Your task to perform on an android device: Go to wifi settings Image 0: 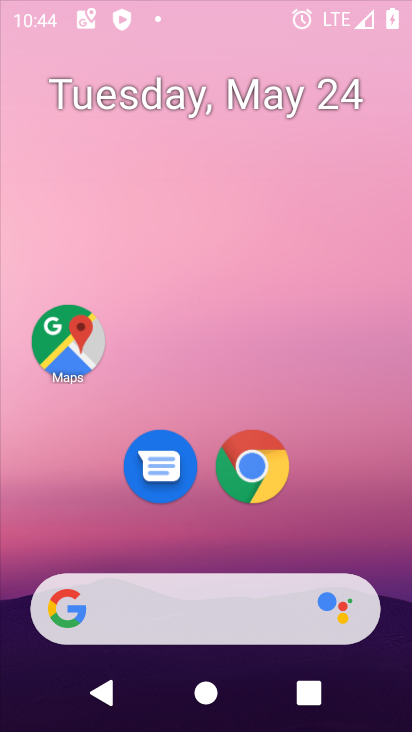
Step 0: drag from (393, 563) to (369, 178)
Your task to perform on an android device: Go to wifi settings Image 1: 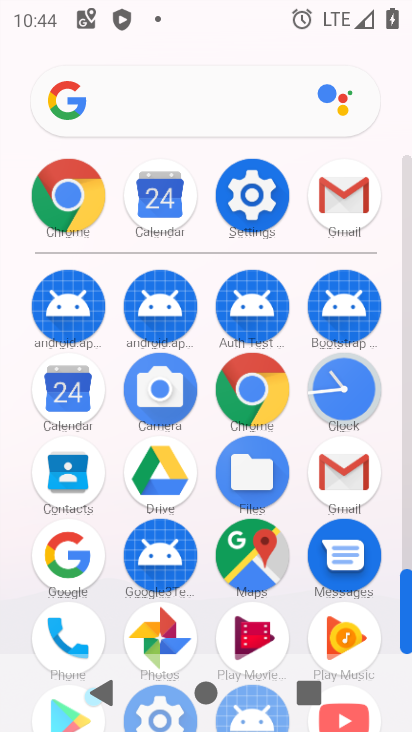
Step 1: click (247, 218)
Your task to perform on an android device: Go to wifi settings Image 2: 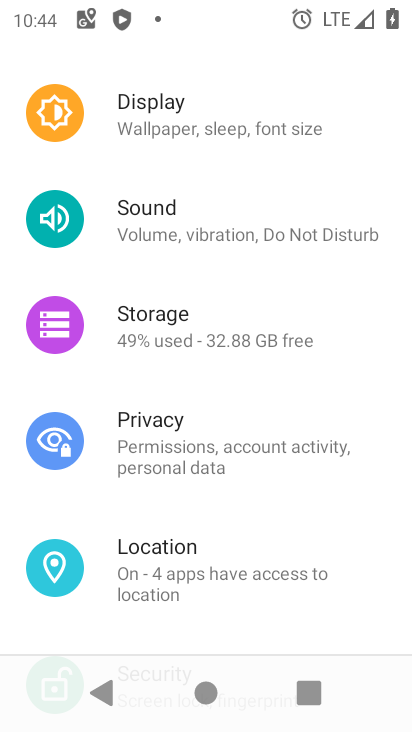
Step 2: drag from (361, 583) to (376, 467)
Your task to perform on an android device: Go to wifi settings Image 3: 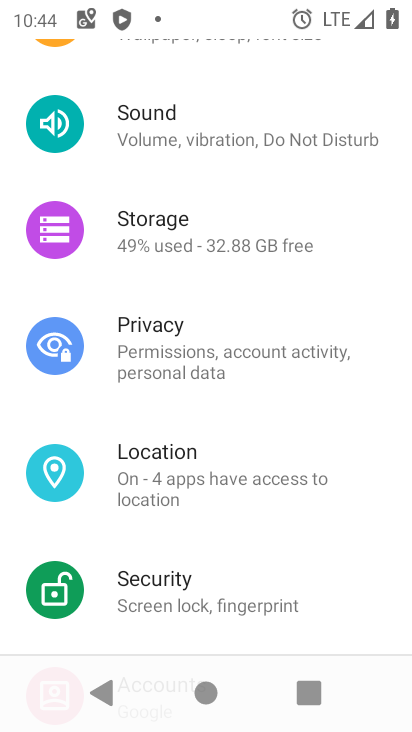
Step 3: drag from (369, 602) to (359, 456)
Your task to perform on an android device: Go to wifi settings Image 4: 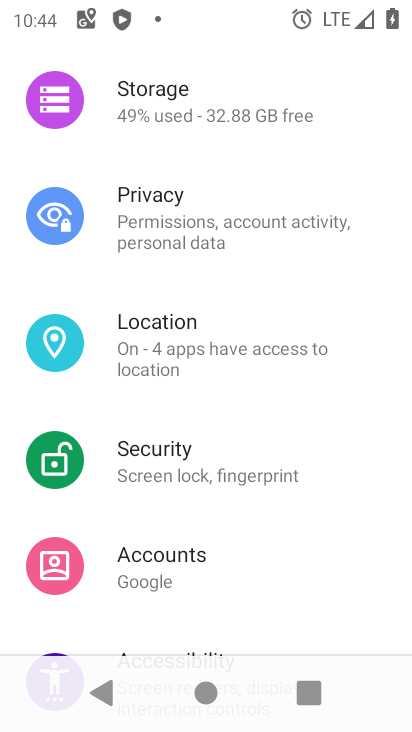
Step 4: drag from (350, 601) to (332, 460)
Your task to perform on an android device: Go to wifi settings Image 5: 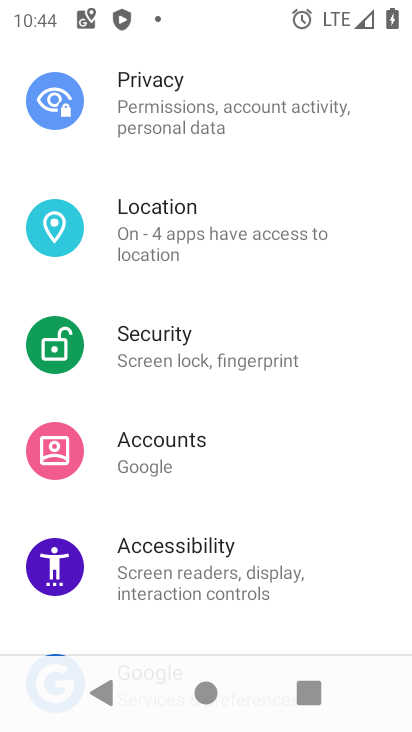
Step 5: drag from (336, 609) to (344, 459)
Your task to perform on an android device: Go to wifi settings Image 6: 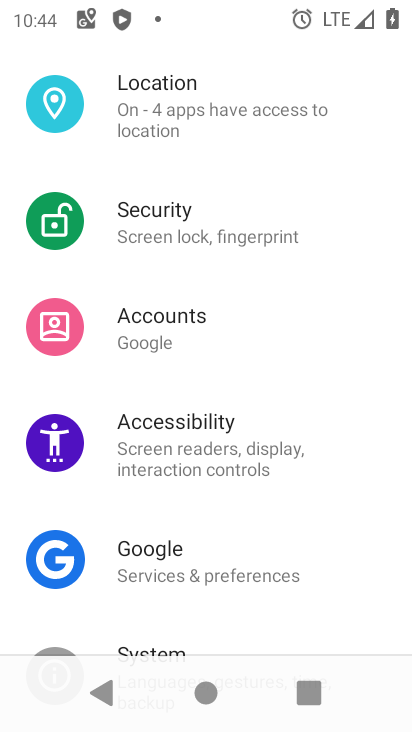
Step 6: drag from (363, 609) to (369, 449)
Your task to perform on an android device: Go to wifi settings Image 7: 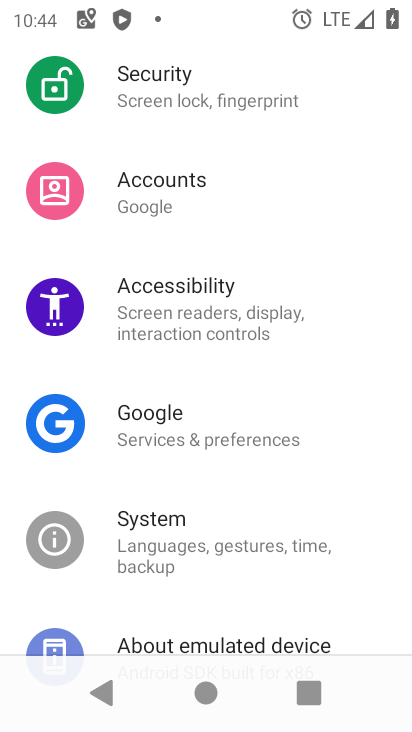
Step 7: drag from (368, 381) to (370, 503)
Your task to perform on an android device: Go to wifi settings Image 8: 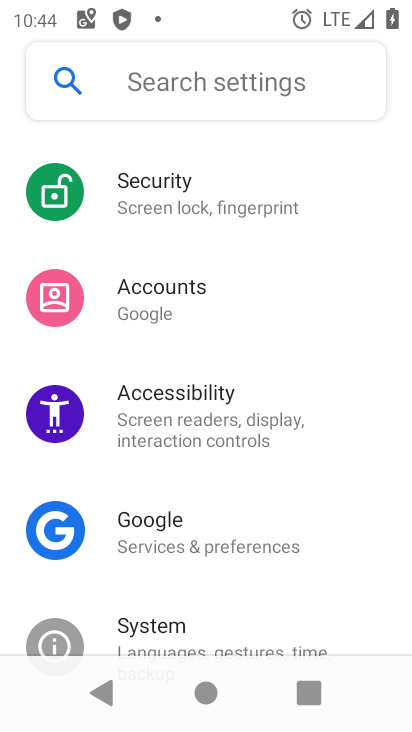
Step 8: drag from (372, 402) to (362, 502)
Your task to perform on an android device: Go to wifi settings Image 9: 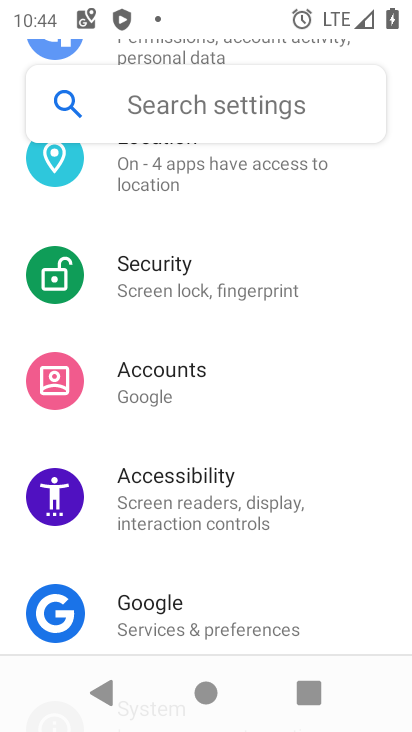
Step 9: drag from (361, 424) to (361, 509)
Your task to perform on an android device: Go to wifi settings Image 10: 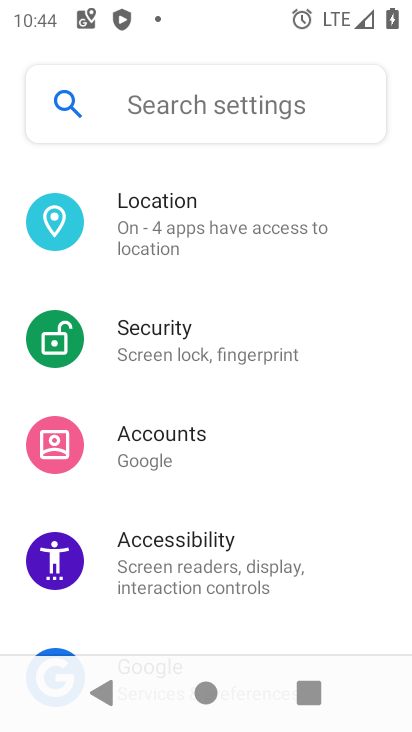
Step 10: drag from (361, 432) to (368, 524)
Your task to perform on an android device: Go to wifi settings Image 11: 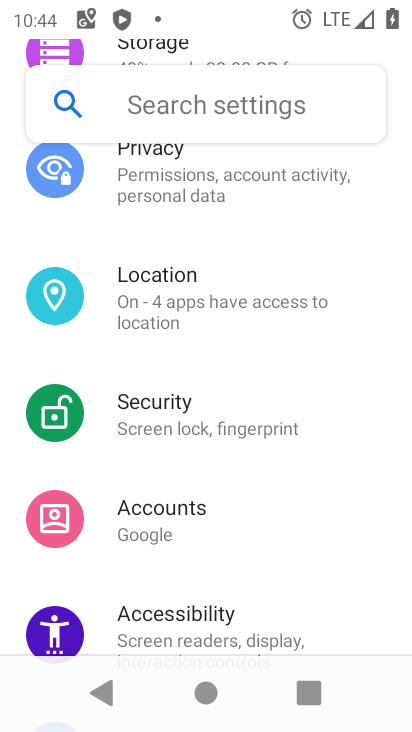
Step 11: drag from (374, 436) to (368, 510)
Your task to perform on an android device: Go to wifi settings Image 12: 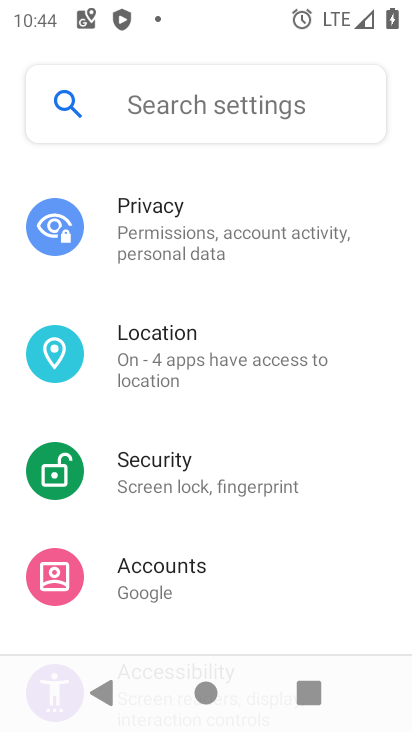
Step 12: drag from (364, 432) to (361, 522)
Your task to perform on an android device: Go to wifi settings Image 13: 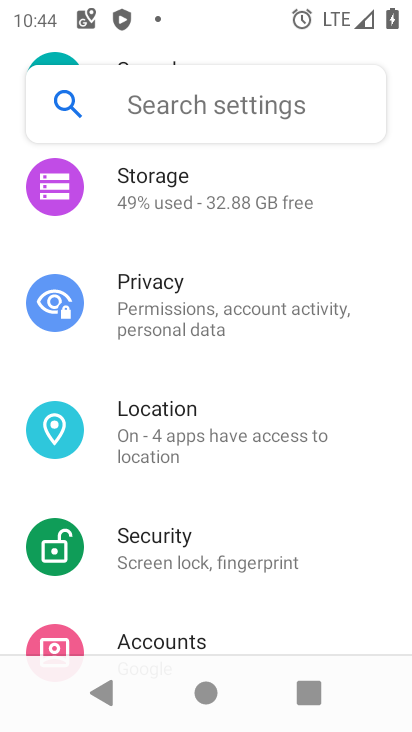
Step 13: drag from (362, 411) to (366, 488)
Your task to perform on an android device: Go to wifi settings Image 14: 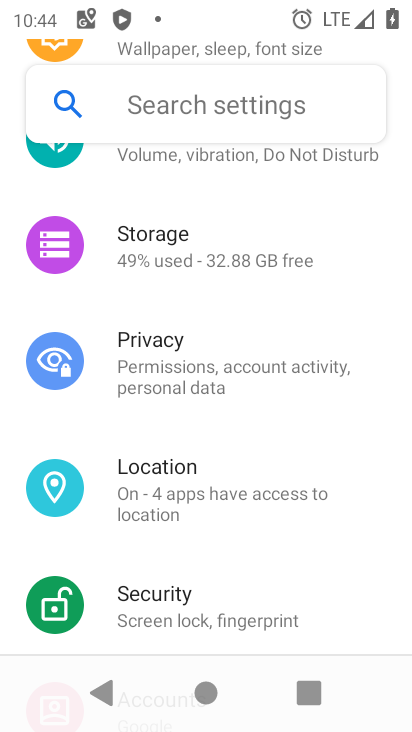
Step 14: drag from (368, 411) to (365, 486)
Your task to perform on an android device: Go to wifi settings Image 15: 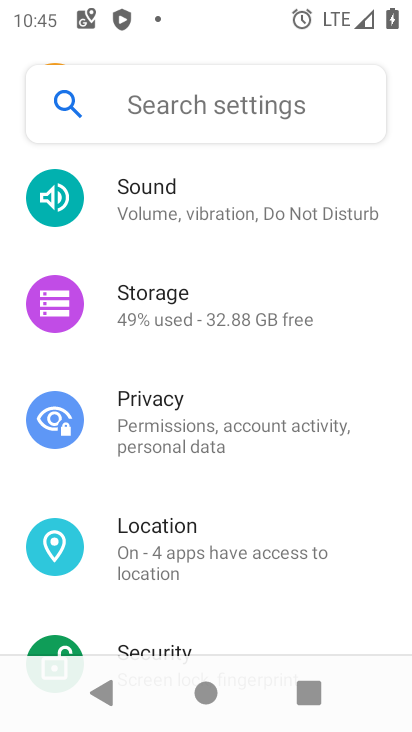
Step 15: drag from (364, 395) to (356, 500)
Your task to perform on an android device: Go to wifi settings Image 16: 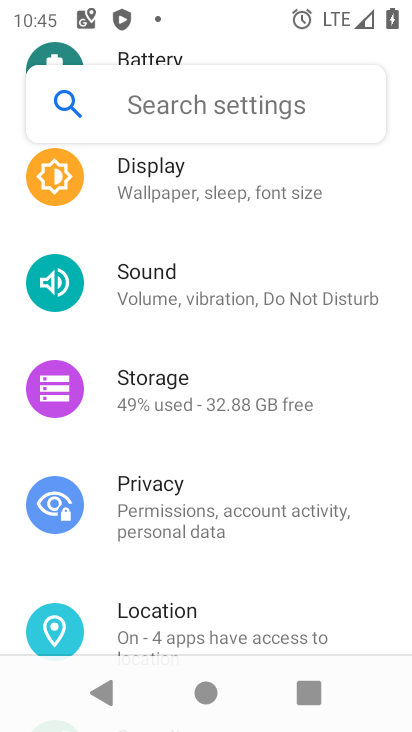
Step 16: drag from (353, 388) to (362, 519)
Your task to perform on an android device: Go to wifi settings Image 17: 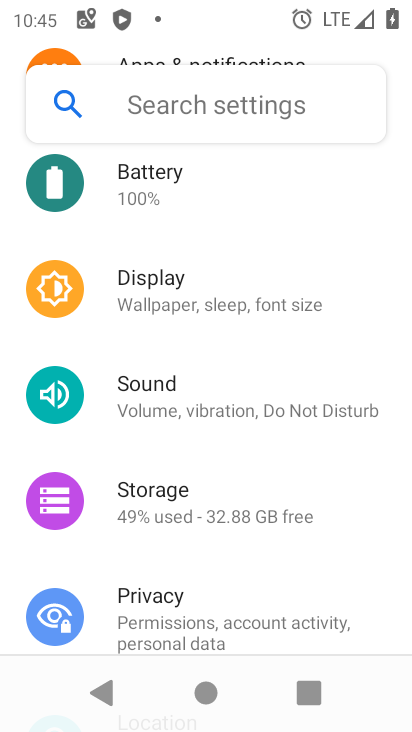
Step 17: drag from (378, 376) to (379, 491)
Your task to perform on an android device: Go to wifi settings Image 18: 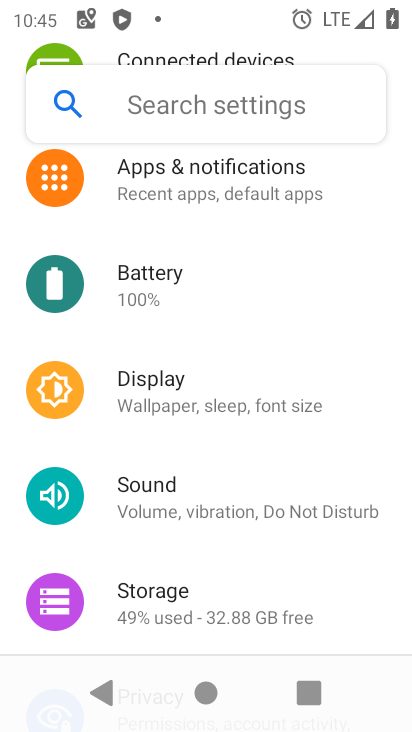
Step 18: drag from (380, 377) to (382, 512)
Your task to perform on an android device: Go to wifi settings Image 19: 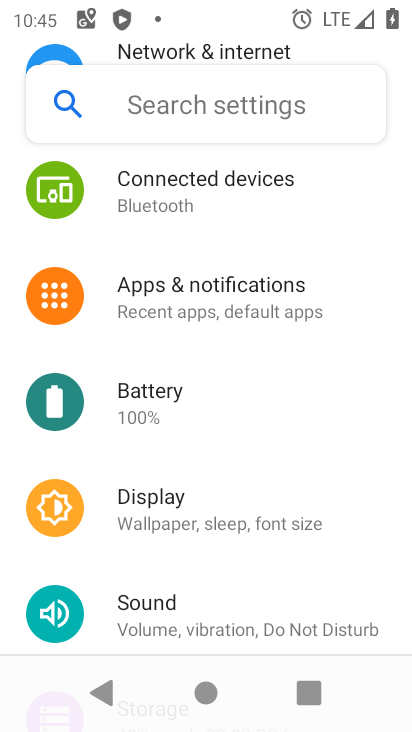
Step 19: drag from (377, 386) to (382, 490)
Your task to perform on an android device: Go to wifi settings Image 20: 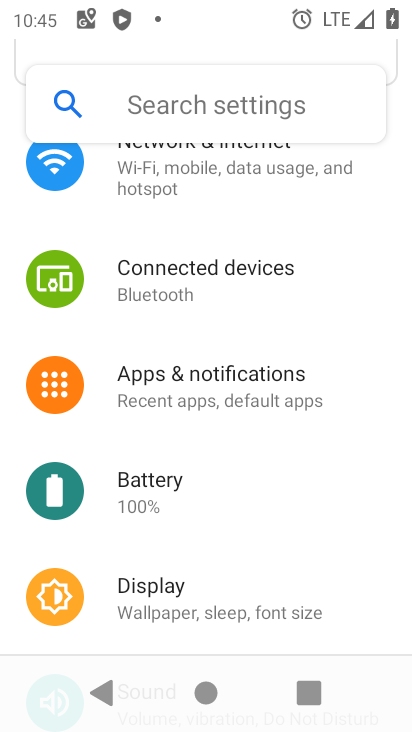
Step 20: drag from (368, 401) to (364, 497)
Your task to perform on an android device: Go to wifi settings Image 21: 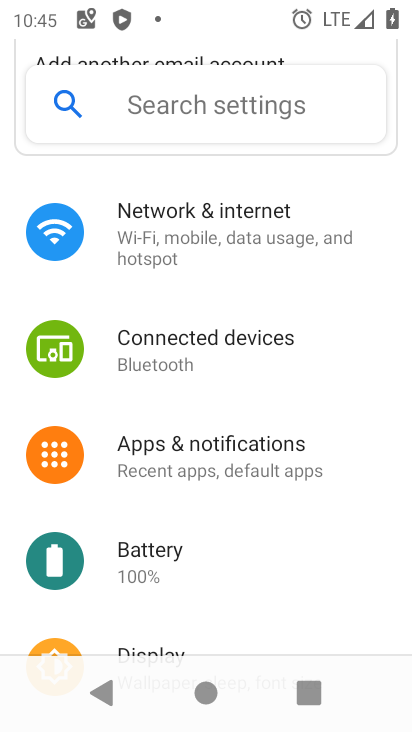
Step 21: drag from (369, 383) to (351, 537)
Your task to perform on an android device: Go to wifi settings Image 22: 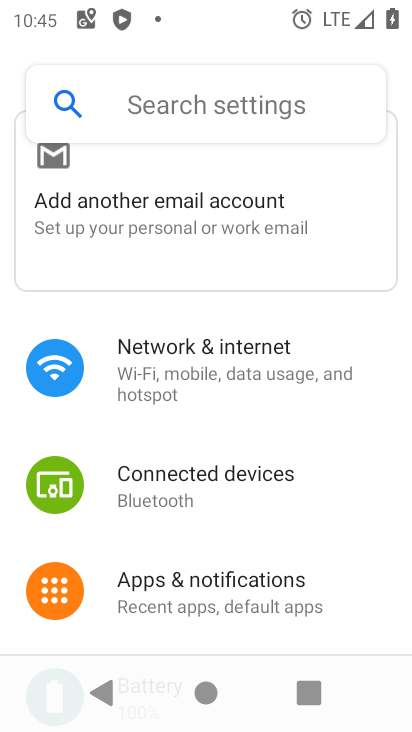
Step 22: drag from (368, 361) to (270, 432)
Your task to perform on an android device: Go to wifi settings Image 23: 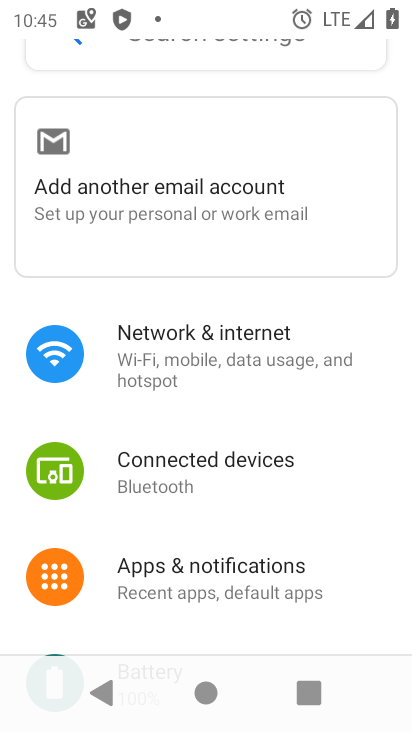
Step 23: click (283, 322)
Your task to perform on an android device: Go to wifi settings Image 24: 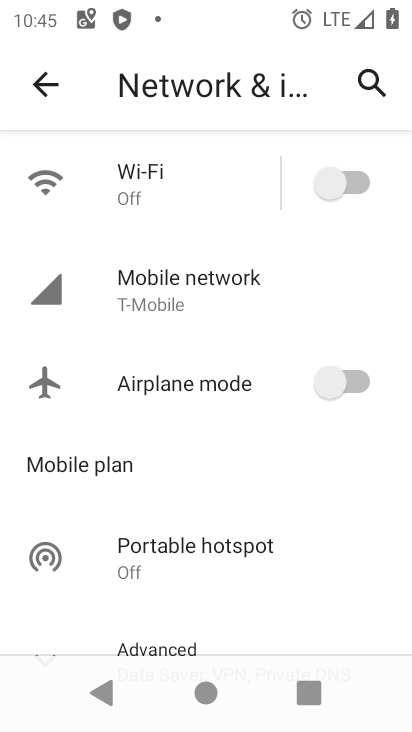
Step 24: click (177, 184)
Your task to perform on an android device: Go to wifi settings Image 25: 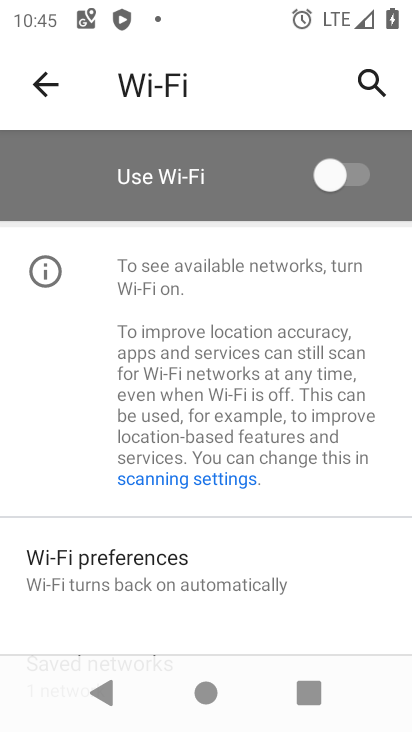
Step 25: task complete